Your task to perform on an android device: Open Android settings Image 0: 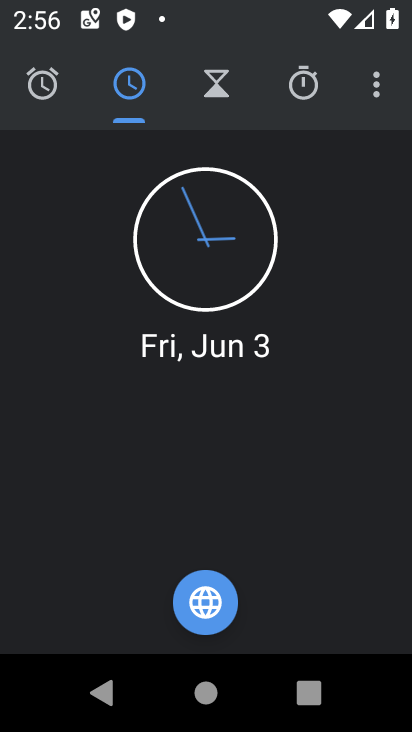
Step 0: press home button
Your task to perform on an android device: Open Android settings Image 1: 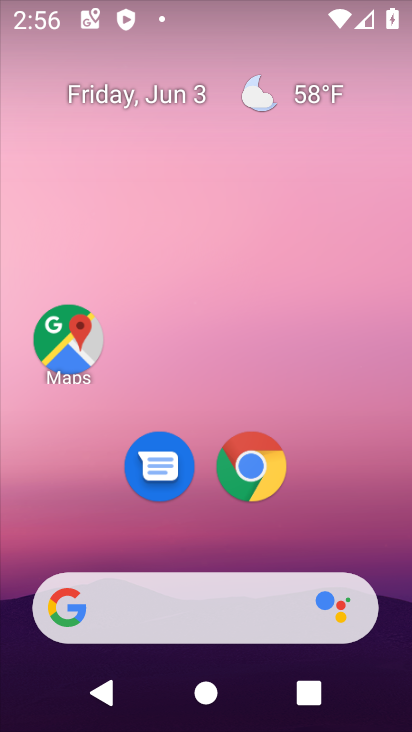
Step 1: drag from (328, 519) to (275, 239)
Your task to perform on an android device: Open Android settings Image 2: 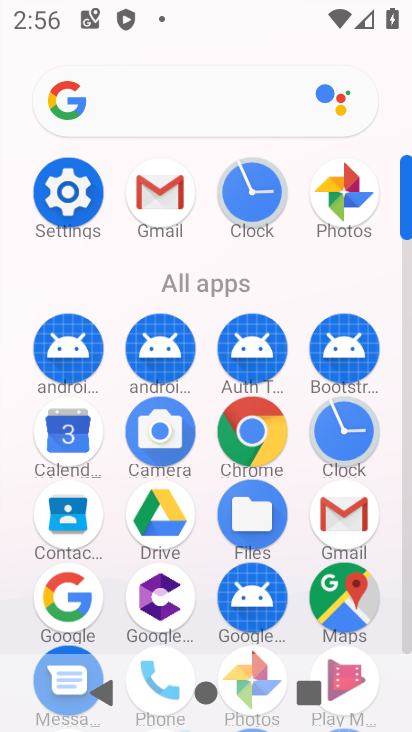
Step 2: click (60, 196)
Your task to perform on an android device: Open Android settings Image 3: 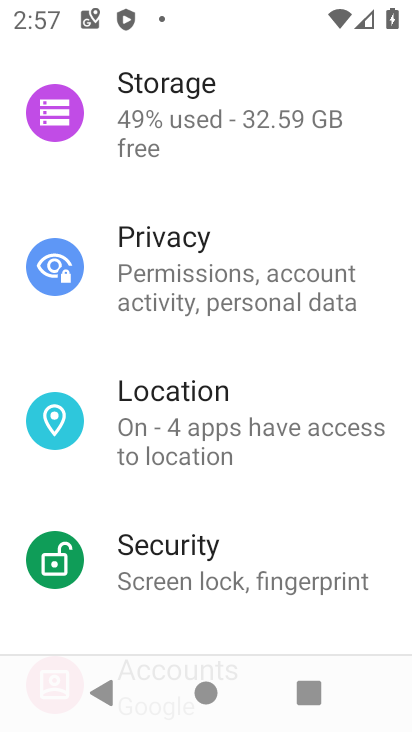
Step 3: task complete